Your task to perform on an android device: toggle location history Image 0: 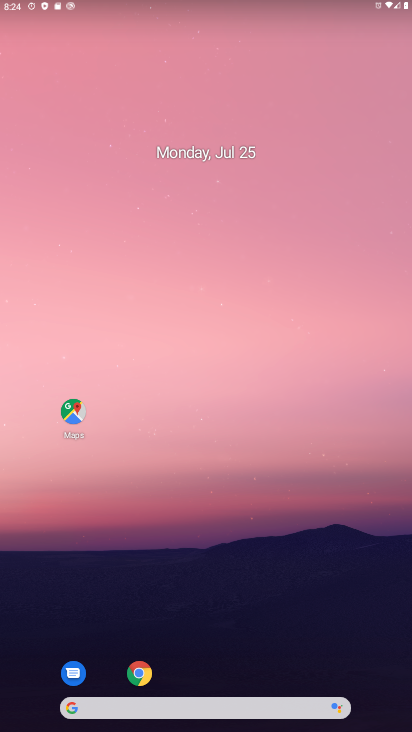
Step 0: drag from (332, 638) to (202, 69)
Your task to perform on an android device: toggle location history Image 1: 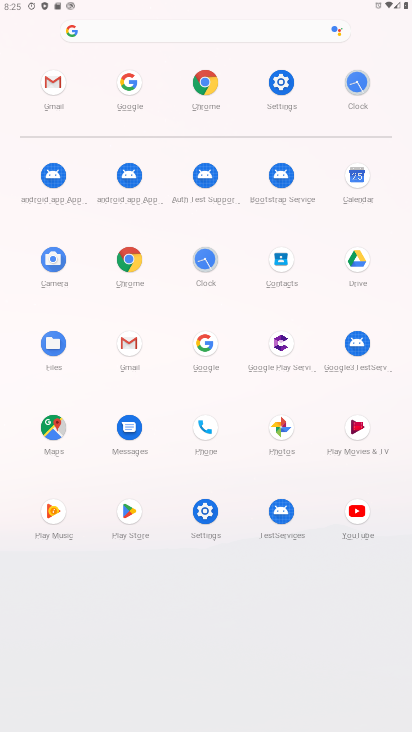
Step 1: click (207, 510)
Your task to perform on an android device: toggle location history Image 2: 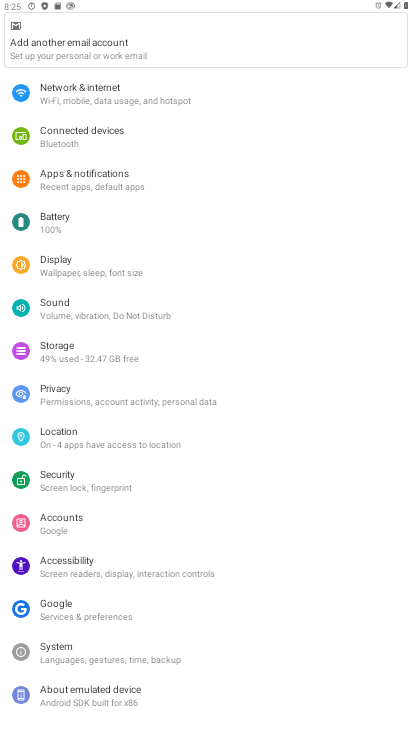
Step 2: click (67, 439)
Your task to perform on an android device: toggle location history Image 3: 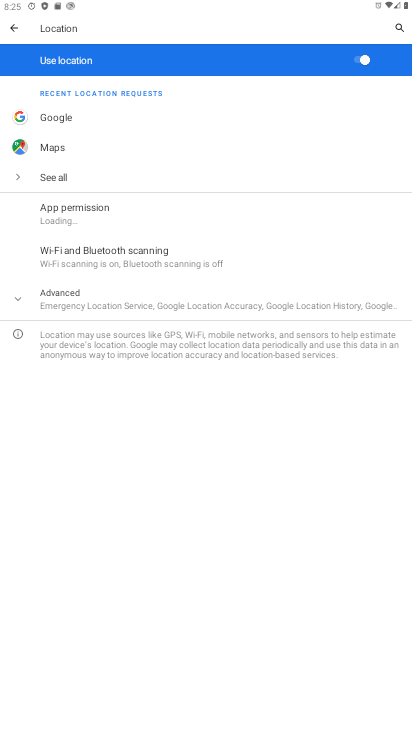
Step 3: click (88, 296)
Your task to perform on an android device: toggle location history Image 4: 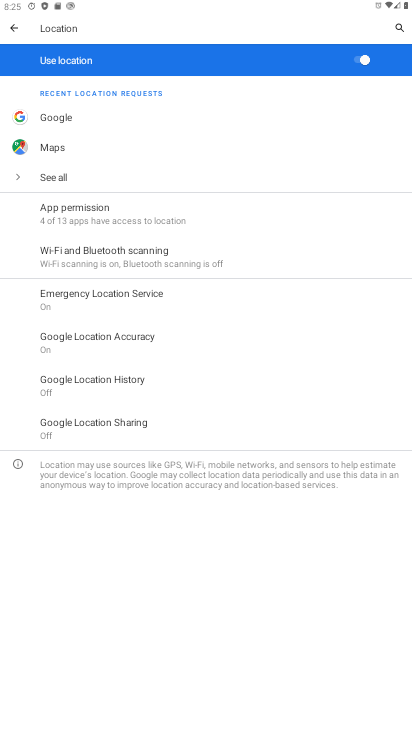
Step 4: click (115, 376)
Your task to perform on an android device: toggle location history Image 5: 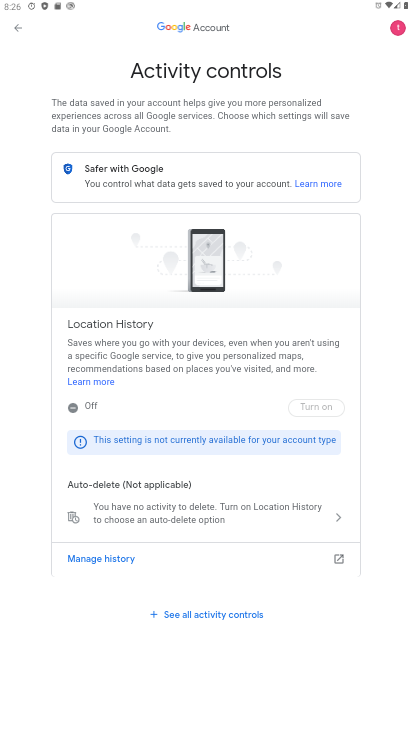
Step 5: task complete